Your task to perform on an android device: Go to Wikipedia Image 0: 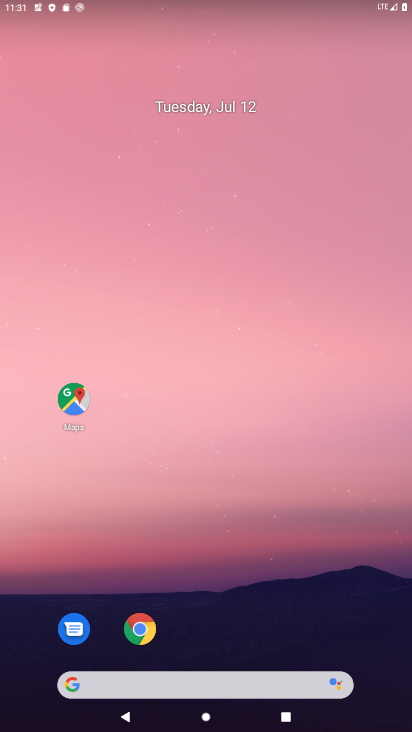
Step 0: press home button
Your task to perform on an android device: Go to Wikipedia Image 1: 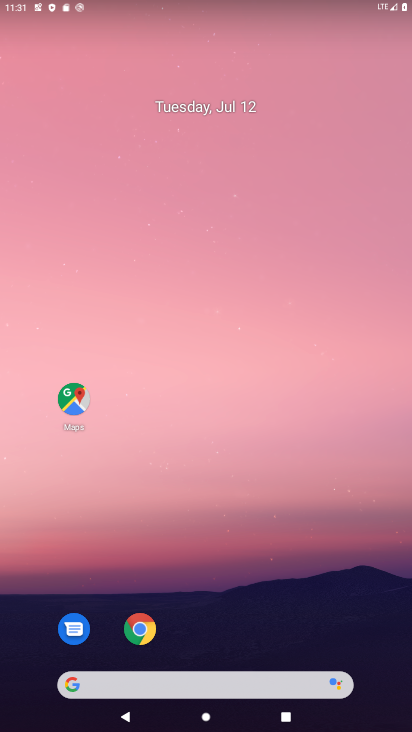
Step 1: drag from (216, 647) to (207, 25)
Your task to perform on an android device: Go to Wikipedia Image 2: 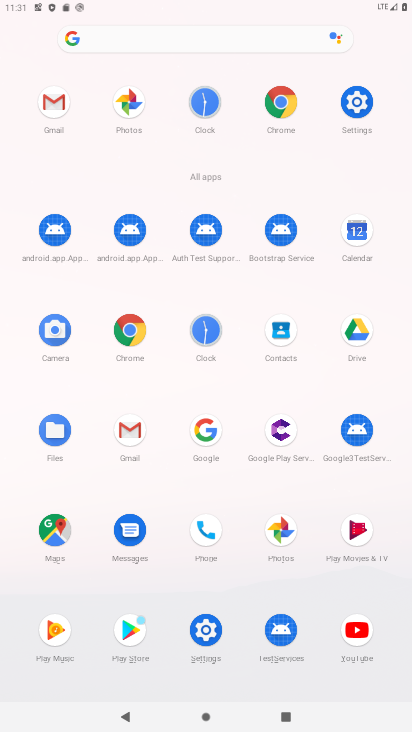
Step 2: click (278, 105)
Your task to perform on an android device: Go to Wikipedia Image 3: 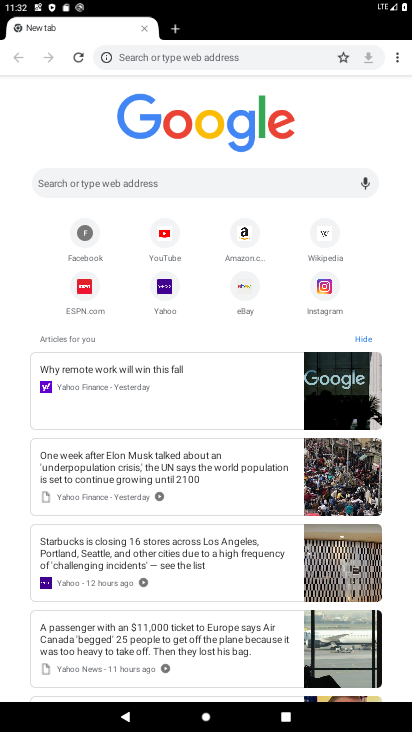
Step 3: click (323, 237)
Your task to perform on an android device: Go to Wikipedia Image 4: 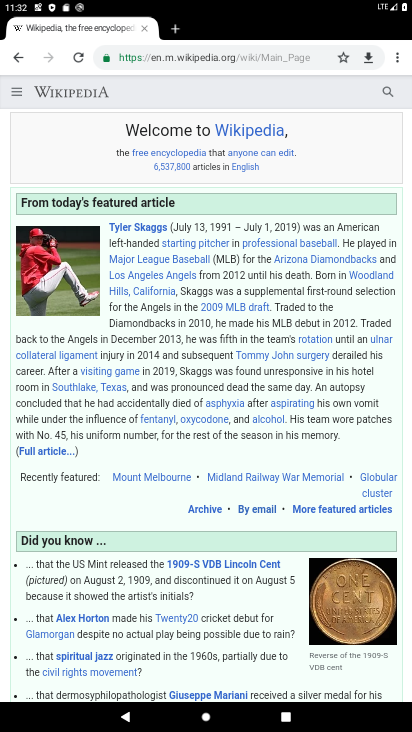
Step 4: task complete